Your task to perform on an android device: turn pop-ups off in chrome Image 0: 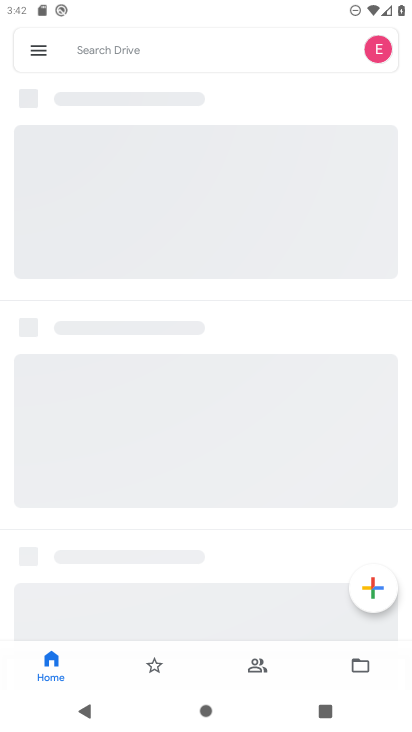
Step 0: press home button
Your task to perform on an android device: turn pop-ups off in chrome Image 1: 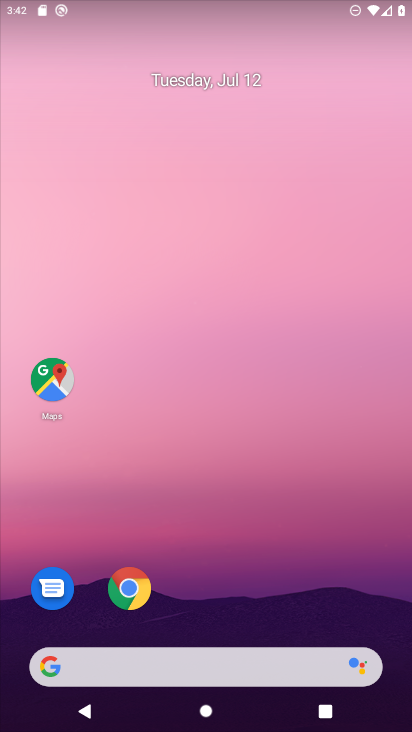
Step 1: drag from (323, 610) to (263, 0)
Your task to perform on an android device: turn pop-ups off in chrome Image 2: 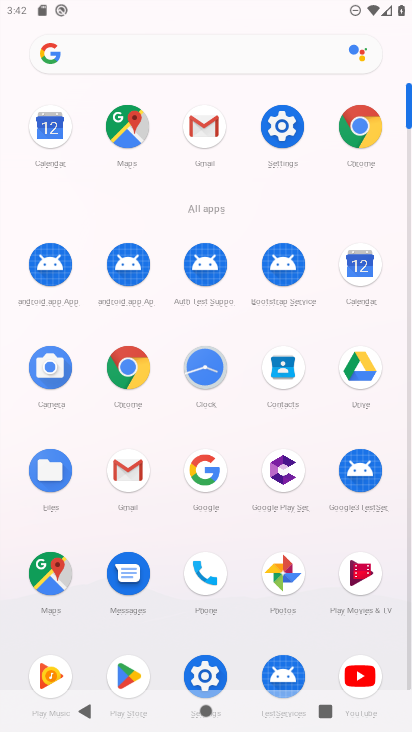
Step 2: click (363, 141)
Your task to perform on an android device: turn pop-ups off in chrome Image 3: 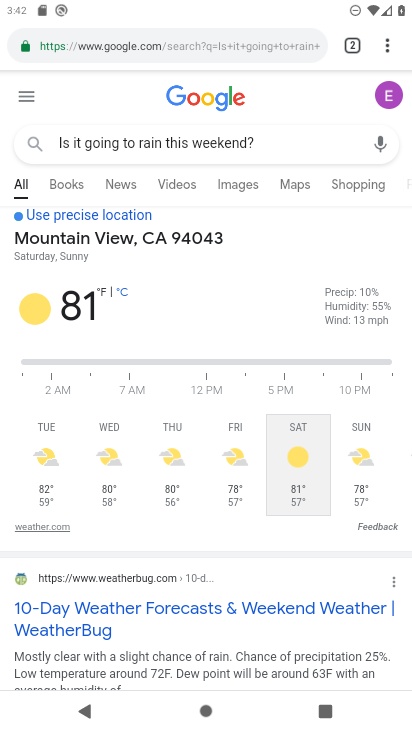
Step 3: click (393, 52)
Your task to perform on an android device: turn pop-ups off in chrome Image 4: 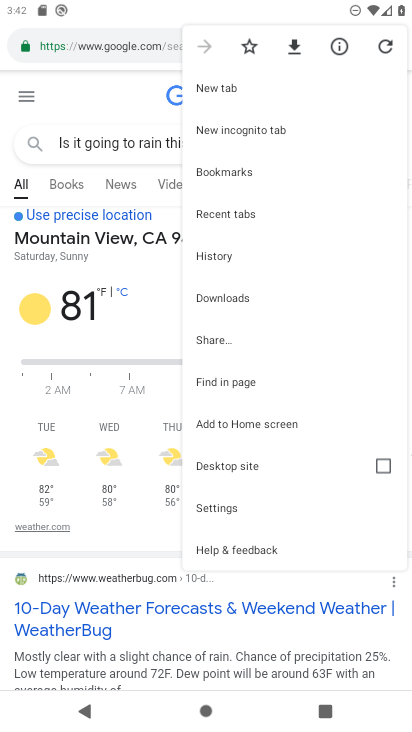
Step 4: click (283, 515)
Your task to perform on an android device: turn pop-ups off in chrome Image 5: 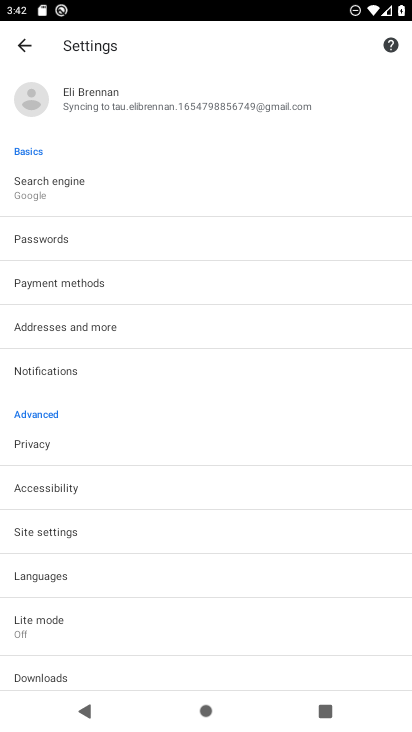
Step 5: click (186, 531)
Your task to perform on an android device: turn pop-ups off in chrome Image 6: 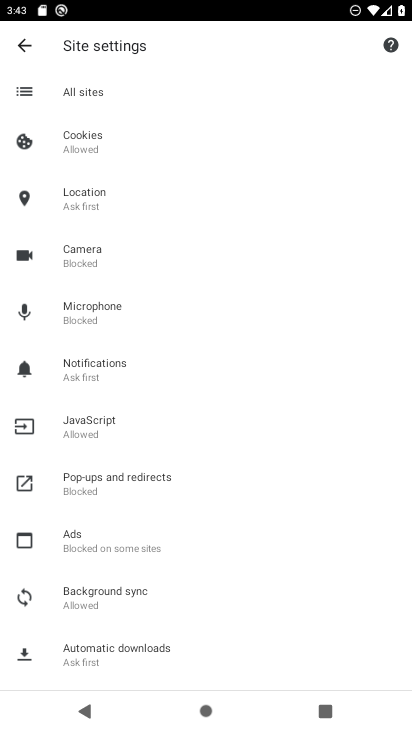
Step 6: click (173, 491)
Your task to perform on an android device: turn pop-ups off in chrome Image 7: 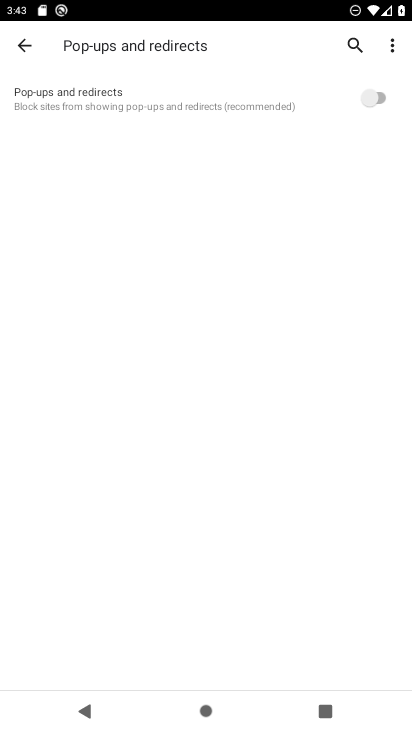
Step 7: task complete